Your task to perform on an android device: toggle notification dots Image 0: 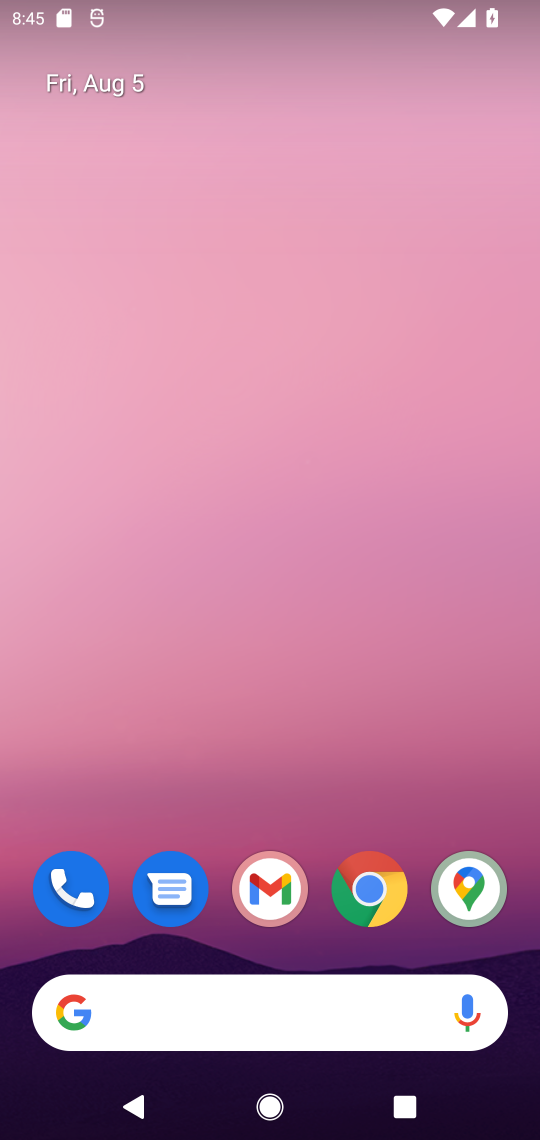
Step 0: drag from (308, 959) to (315, 284)
Your task to perform on an android device: toggle notification dots Image 1: 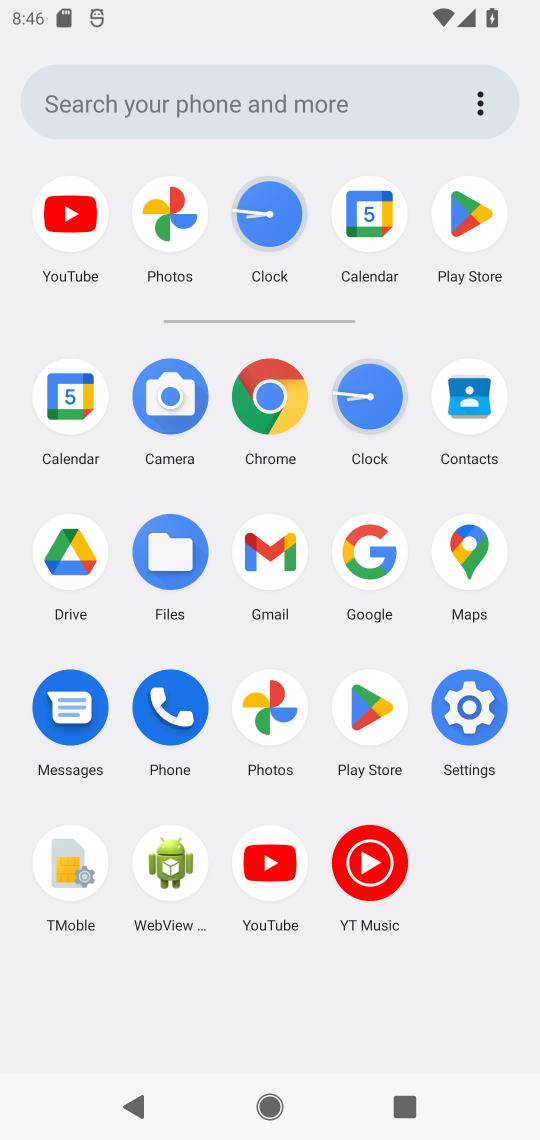
Step 1: click (461, 685)
Your task to perform on an android device: toggle notification dots Image 2: 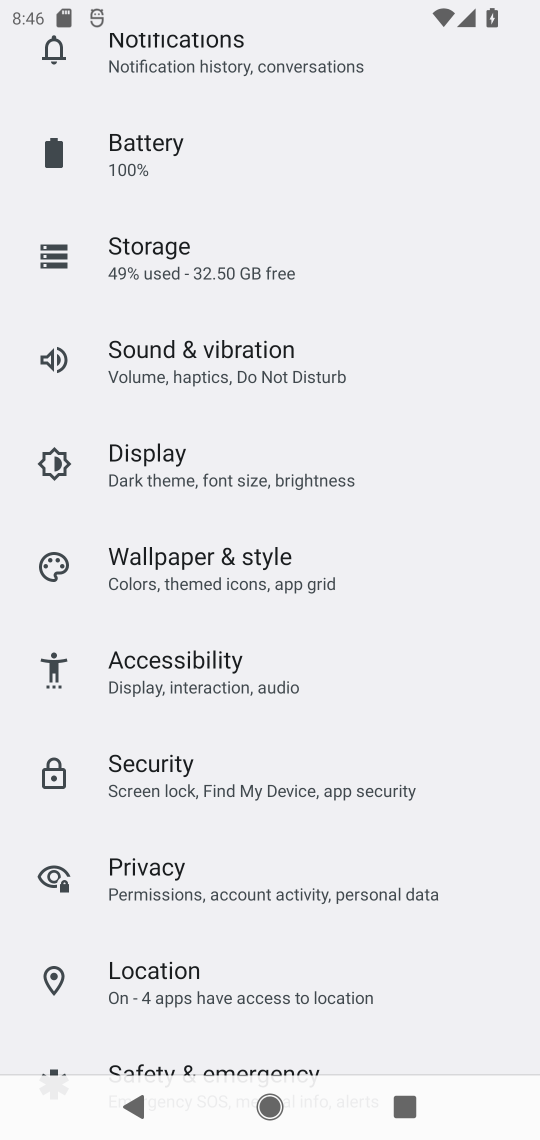
Step 2: drag from (276, 173) to (241, 922)
Your task to perform on an android device: toggle notification dots Image 3: 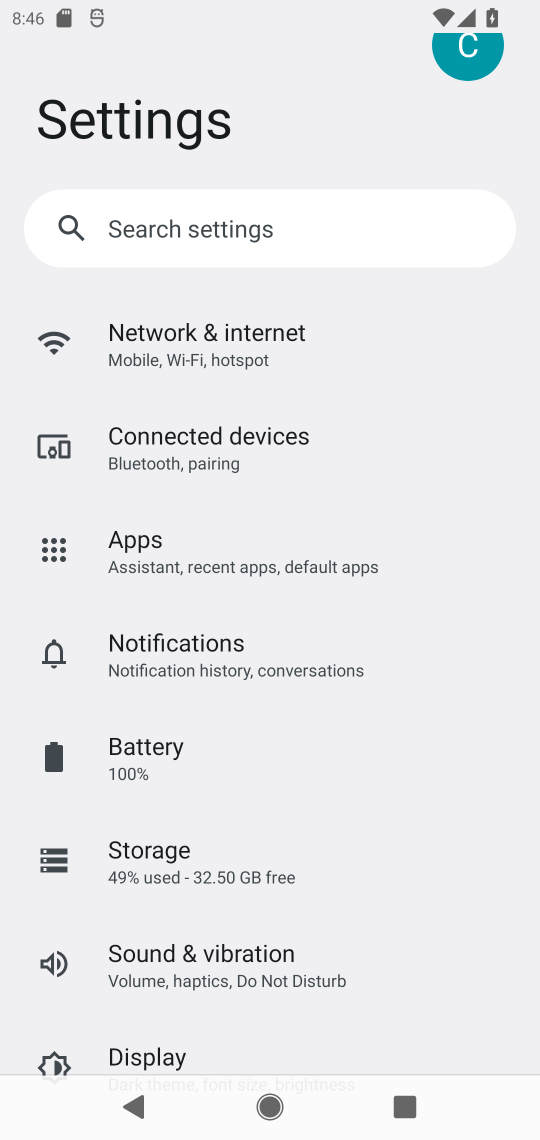
Step 3: click (232, 219)
Your task to perform on an android device: toggle notification dots Image 4: 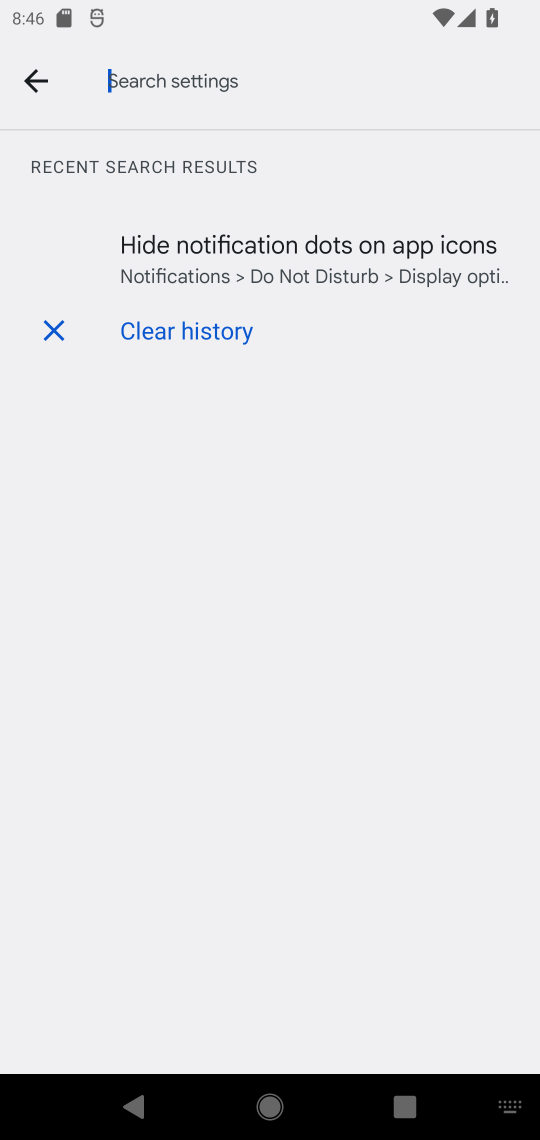
Step 4: click (266, 81)
Your task to perform on an android device: toggle notification dots Image 5: 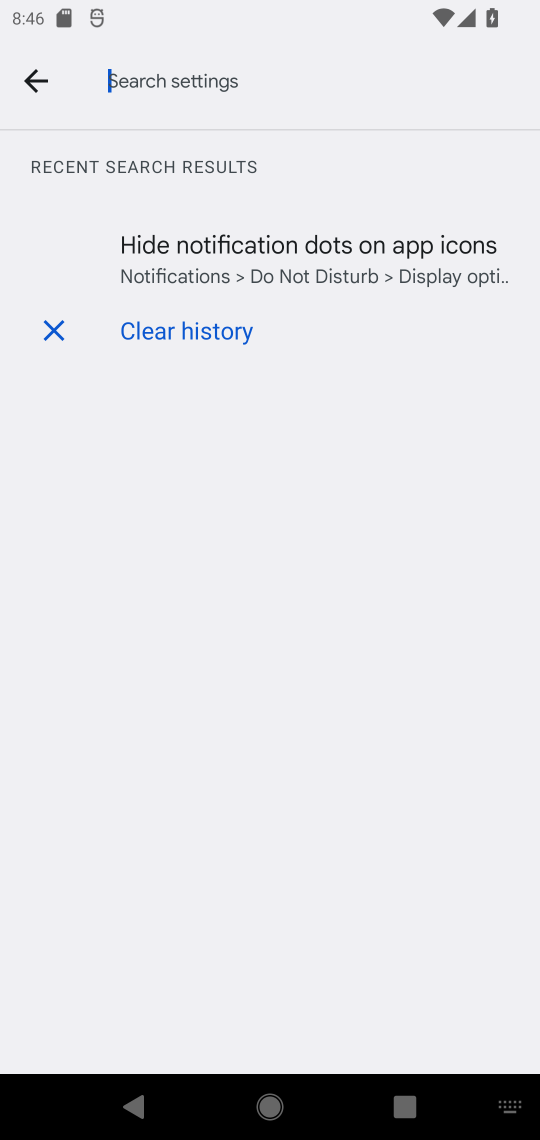
Step 5: type " notification dots "
Your task to perform on an android device: toggle notification dots Image 6: 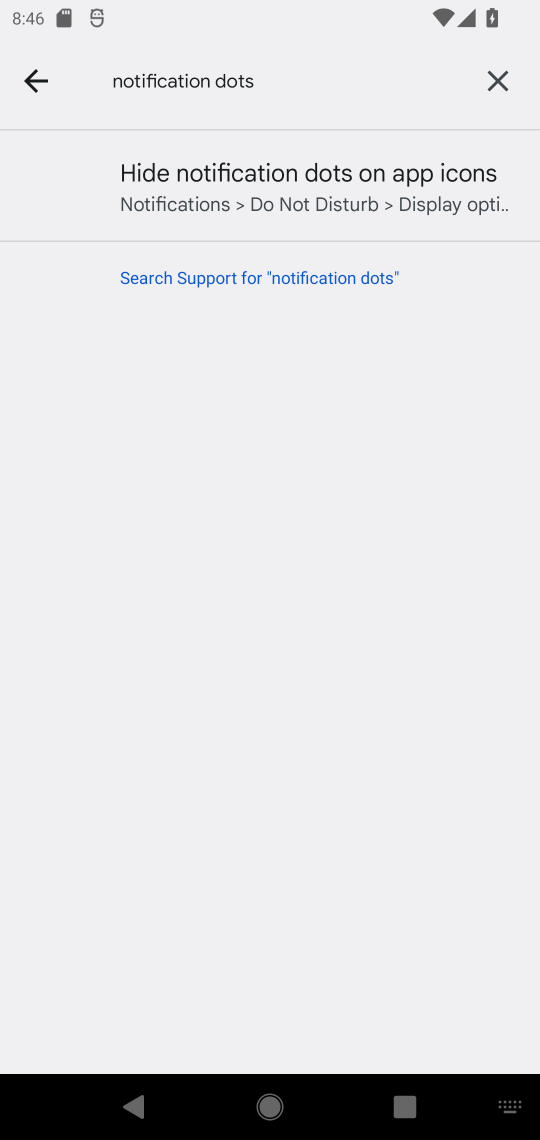
Step 6: click (249, 201)
Your task to perform on an android device: toggle notification dots Image 7: 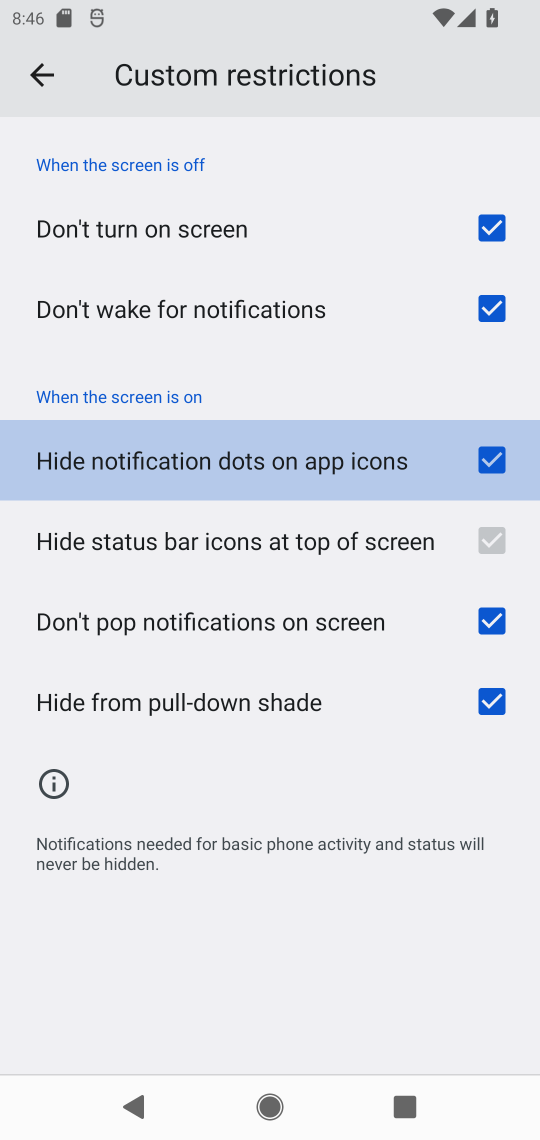
Step 7: click (499, 459)
Your task to perform on an android device: toggle notification dots Image 8: 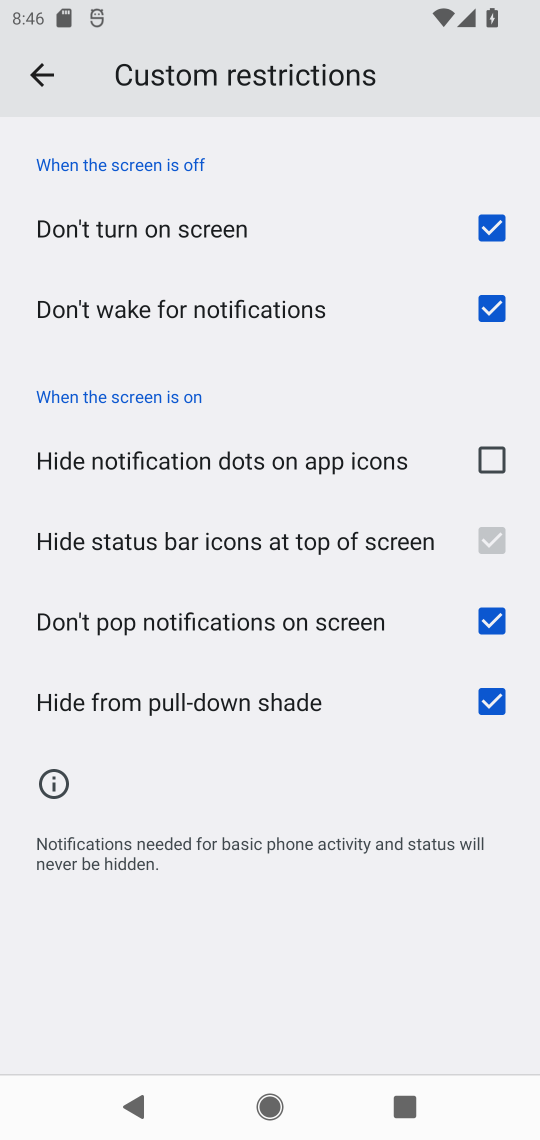
Step 8: task complete